Your task to perform on an android device: See recent photos Image 0: 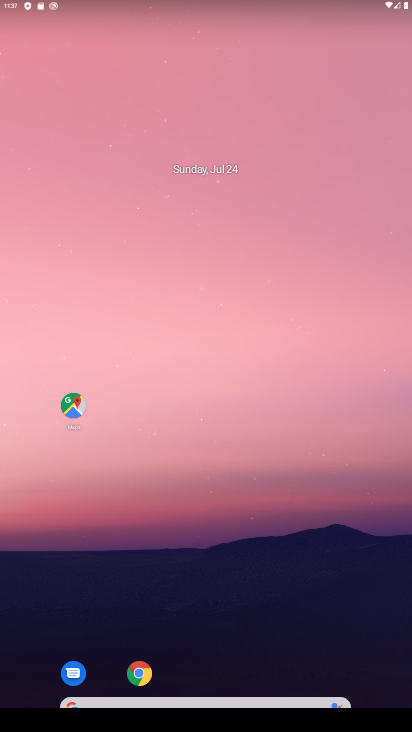
Step 0: drag from (259, 684) to (369, 53)
Your task to perform on an android device: See recent photos Image 1: 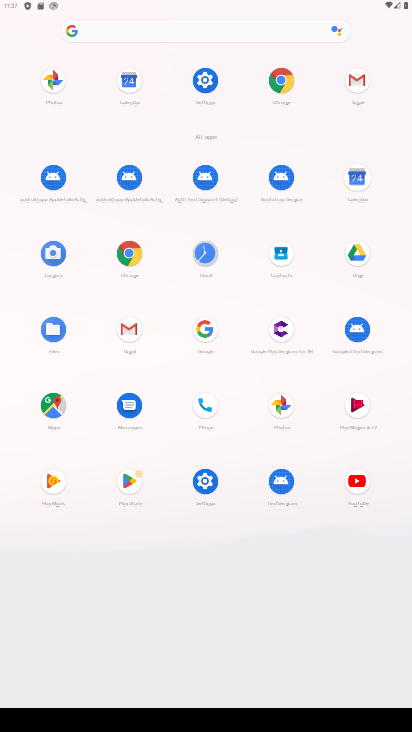
Step 1: click (58, 81)
Your task to perform on an android device: See recent photos Image 2: 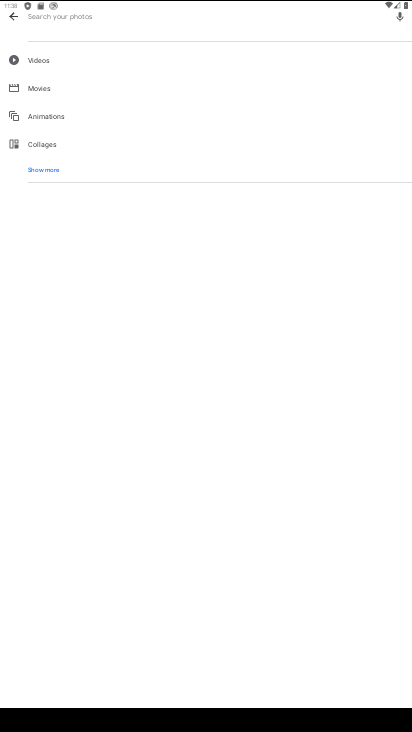
Step 2: task complete